Your task to perform on an android device: What is the recent news? Image 0: 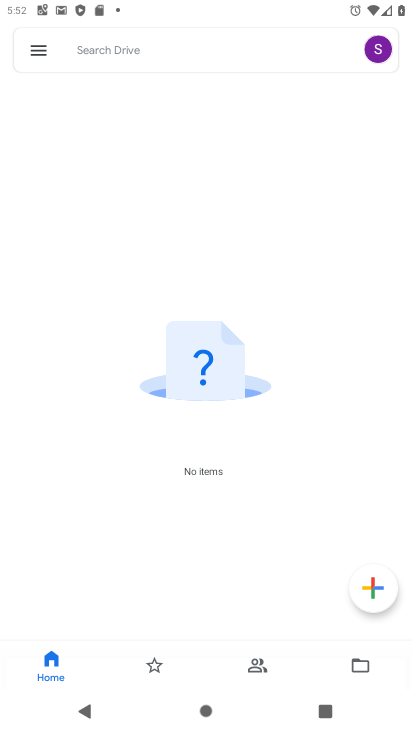
Step 0: press home button
Your task to perform on an android device: What is the recent news? Image 1: 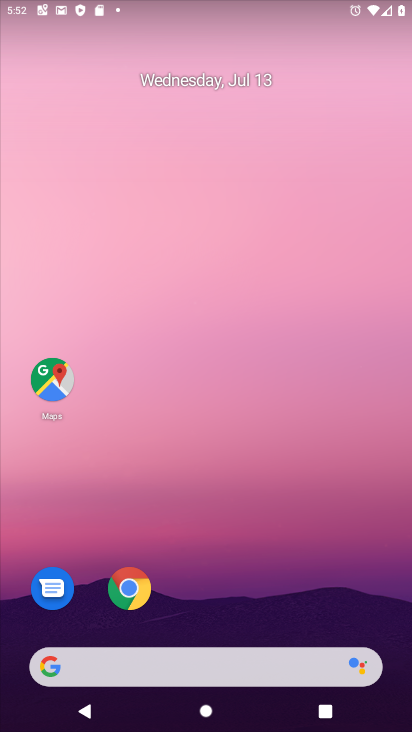
Step 1: click (141, 663)
Your task to perform on an android device: What is the recent news? Image 2: 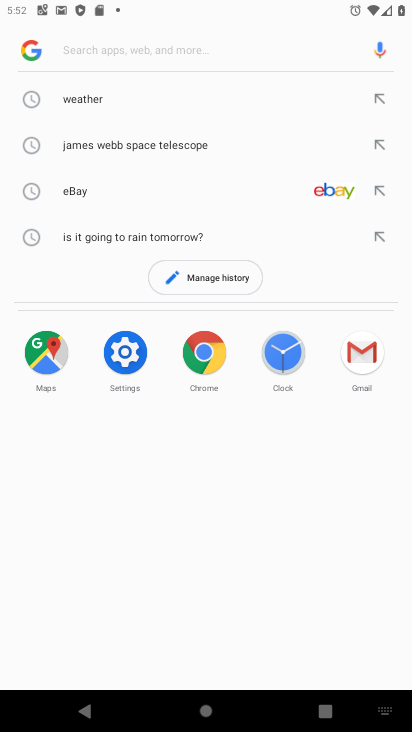
Step 2: type "recent news"
Your task to perform on an android device: What is the recent news? Image 3: 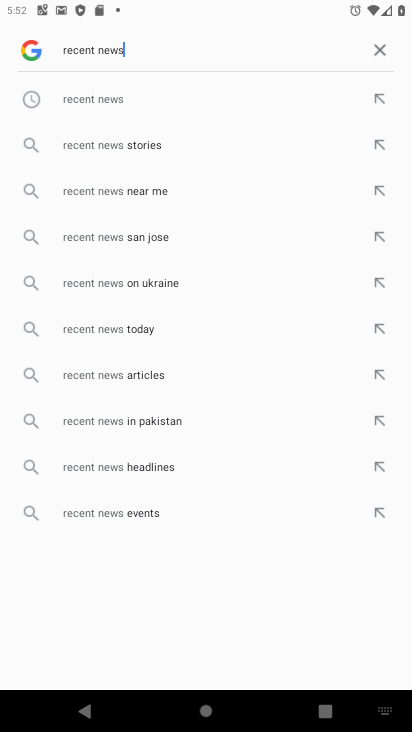
Step 3: click (84, 100)
Your task to perform on an android device: What is the recent news? Image 4: 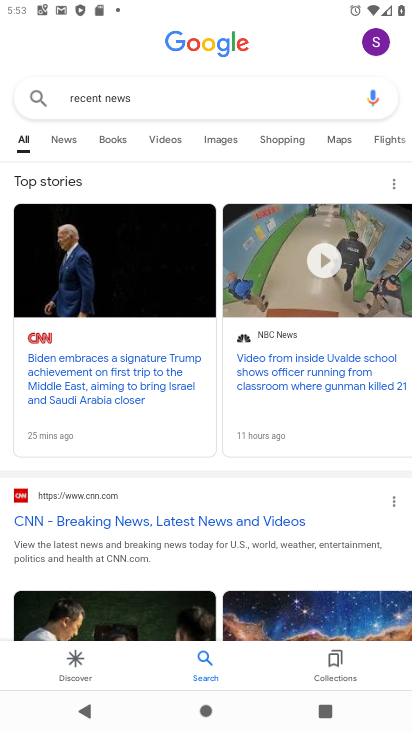
Step 4: task complete